Your task to perform on an android device: star an email in the gmail app Image 0: 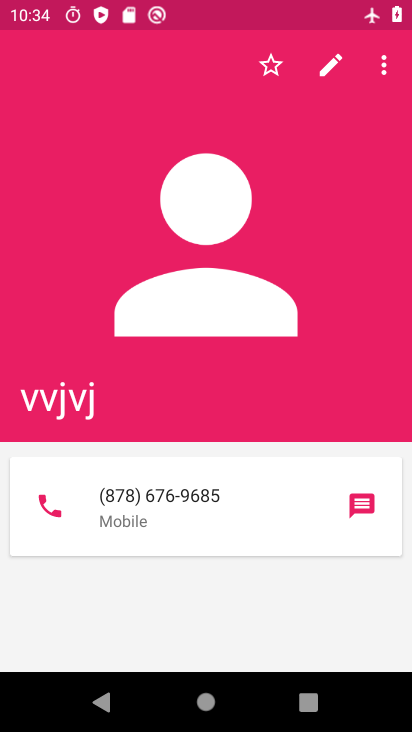
Step 0: press home button
Your task to perform on an android device: star an email in the gmail app Image 1: 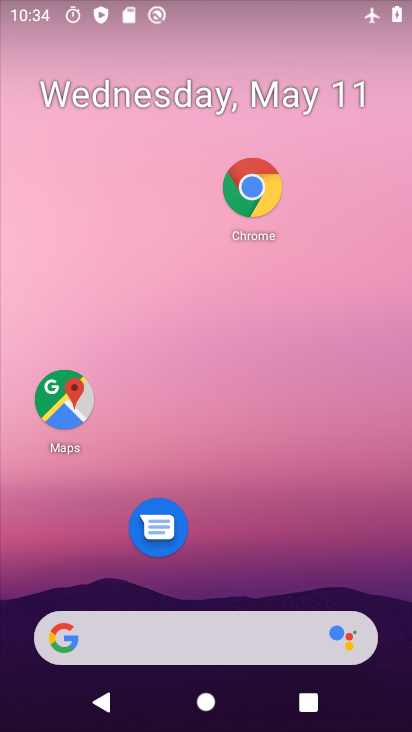
Step 1: drag from (135, 531) to (147, 25)
Your task to perform on an android device: star an email in the gmail app Image 2: 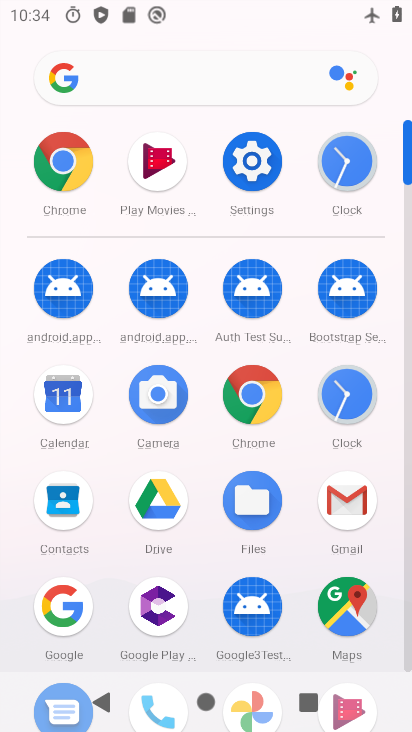
Step 2: click (347, 517)
Your task to perform on an android device: star an email in the gmail app Image 3: 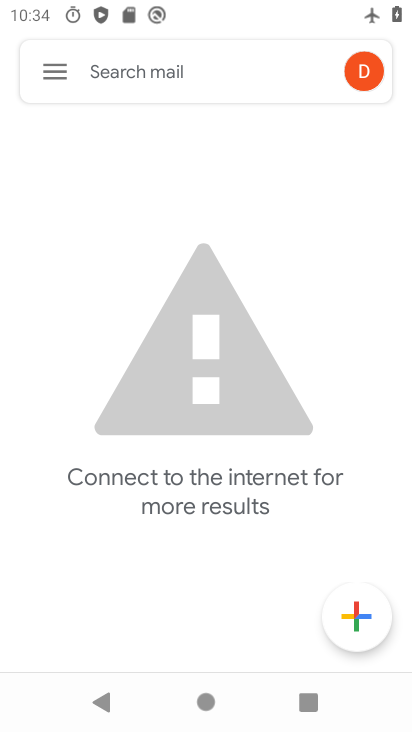
Step 3: click (62, 81)
Your task to perform on an android device: star an email in the gmail app Image 4: 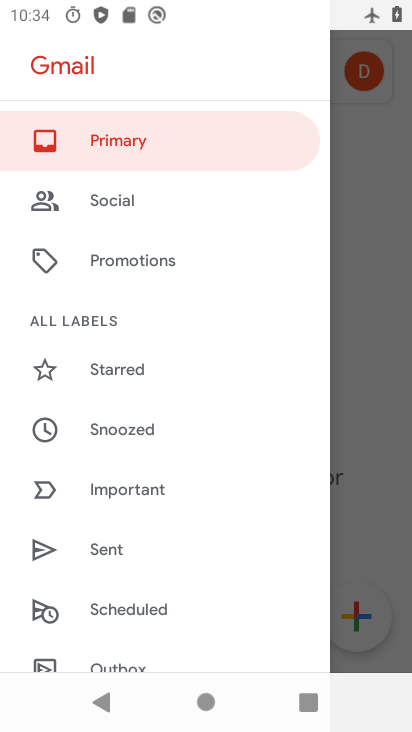
Step 4: drag from (139, 451) to (178, 287)
Your task to perform on an android device: star an email in the gmail app Image 5: 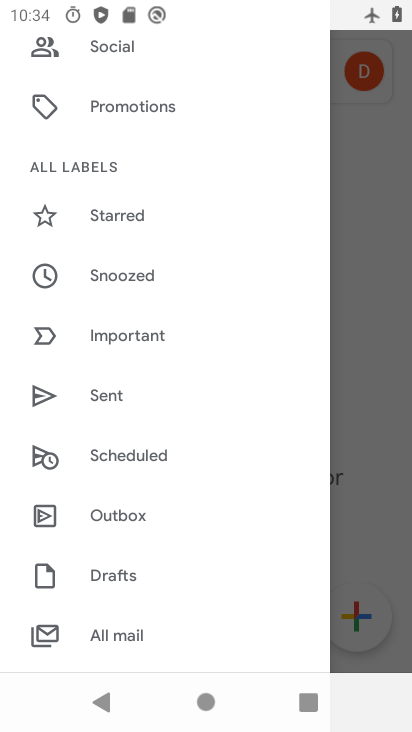
Step 5: click (136, 630)
Your task to perform on an android device: star an email in the gmail app Image 6: 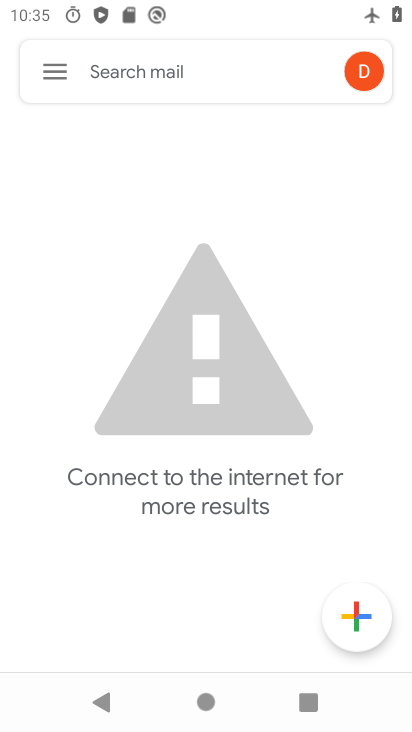
Step 6: task complete